Your task to perform on an android device: Open Google Maps Image 0: 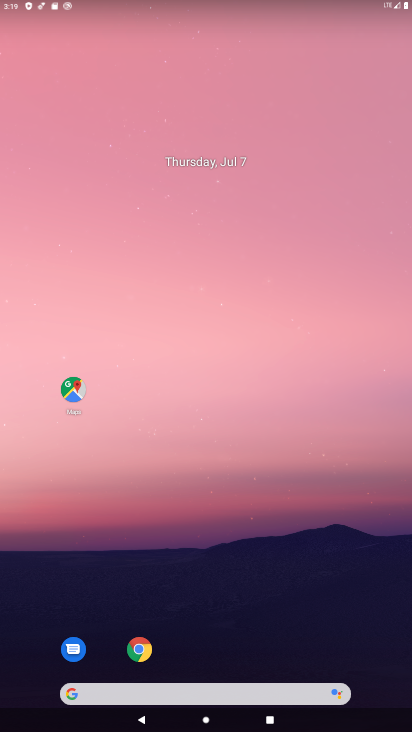
Step 0: drag from (329, 495) to (331, 342)
Your task to perform on an android device: Open Google Maps Image 1: 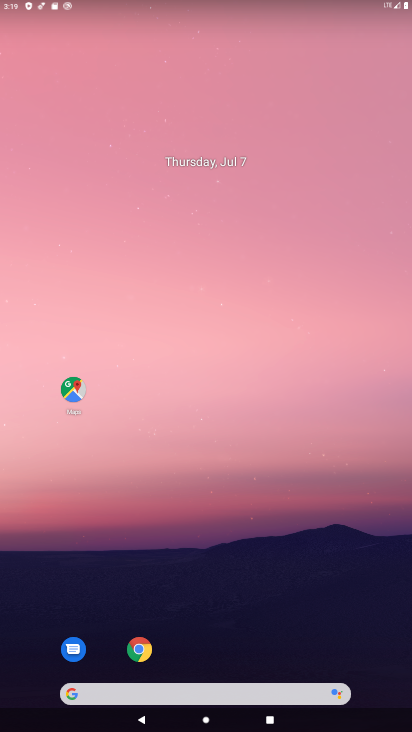
Step 1: drag from (273, 576) to (314, 14)
Your task to perform on an android device: Open Google Maps Image 2: 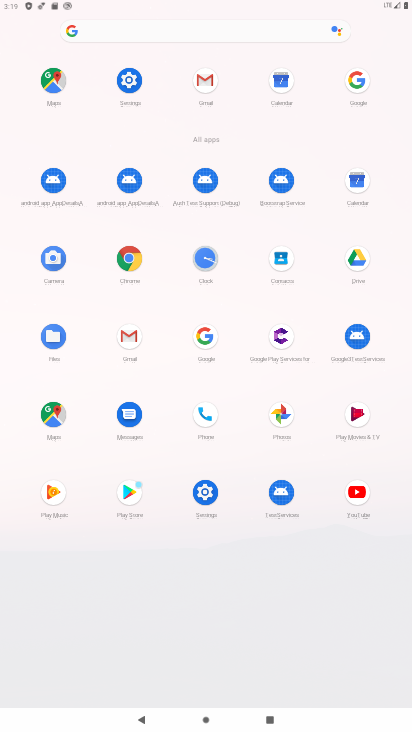
Step 2: click (45, 420)
Your task to perform on an android device: Open Google Maps Image 3: 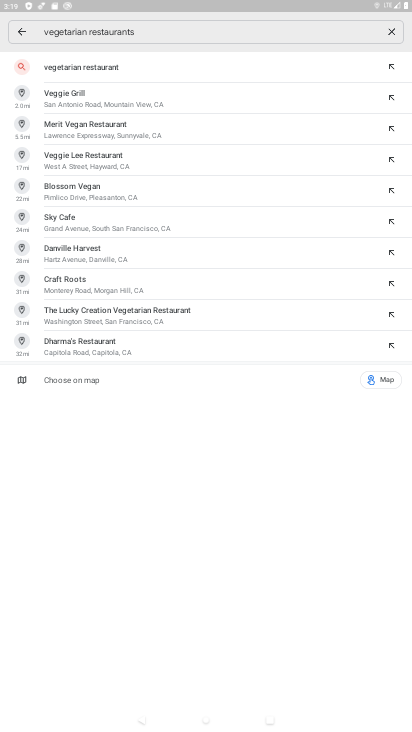
Step 3: click (17, 36)
Your task to perform on an android device: Open Google Maps Image 4: 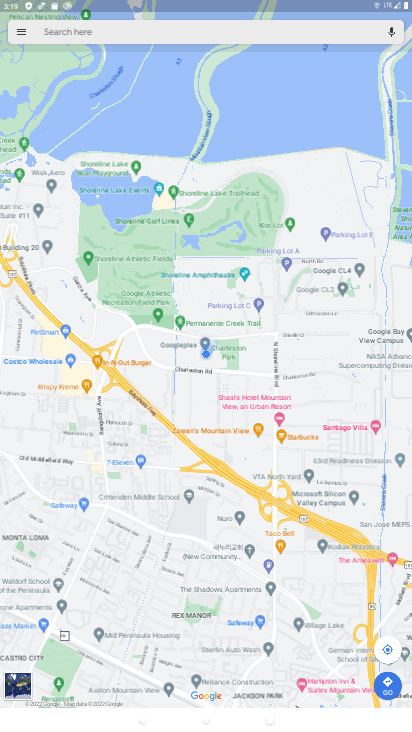
Step 4: task complete